Your task to perform on an android device: toggle notification dots Image 0: 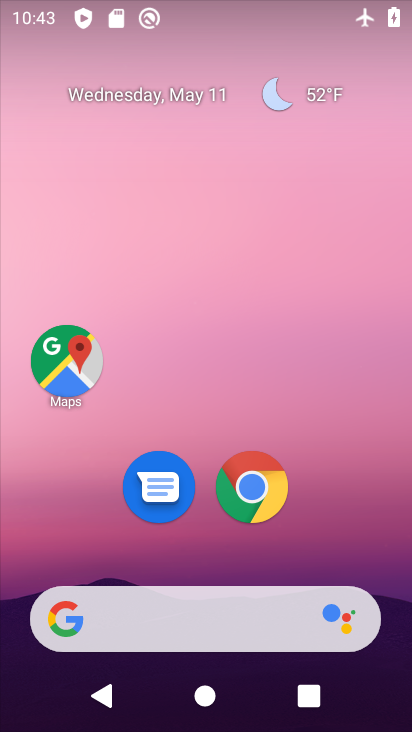
Step 0: drag from (351, 526) to (242, 15)
Your task to perform on an android device: toggle notification dots Image 1: 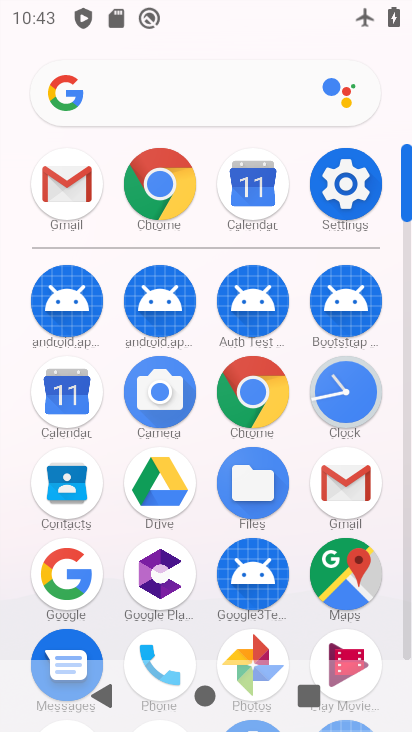
Step 1: drag from (8, 529) to (3, 211)
Your task to perform on an android device: toggle notification dots Image 2: 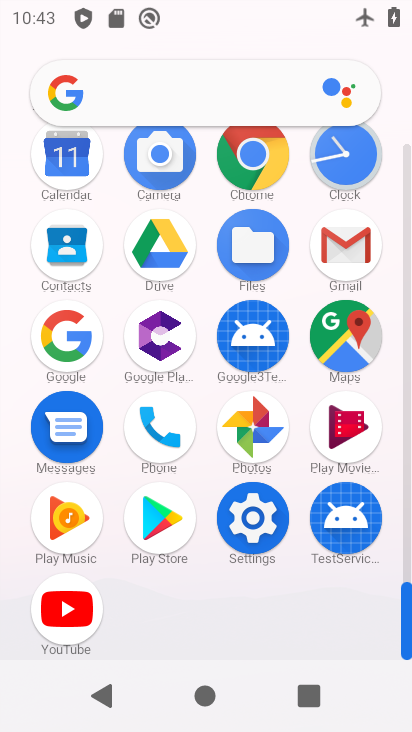
Step 2: click (252, 514)
Your task to perform on an android device: toggle notification dots Image 3: 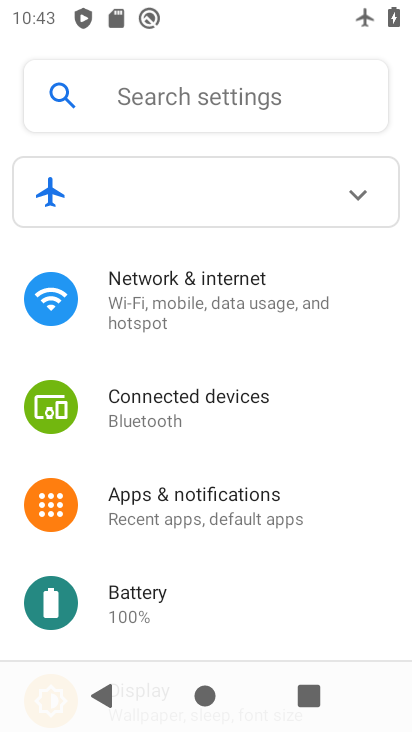
Step 3: drag from (325, 585) to (332, 203)
Your task to perform on an android device: toggle notification dots Image 4: 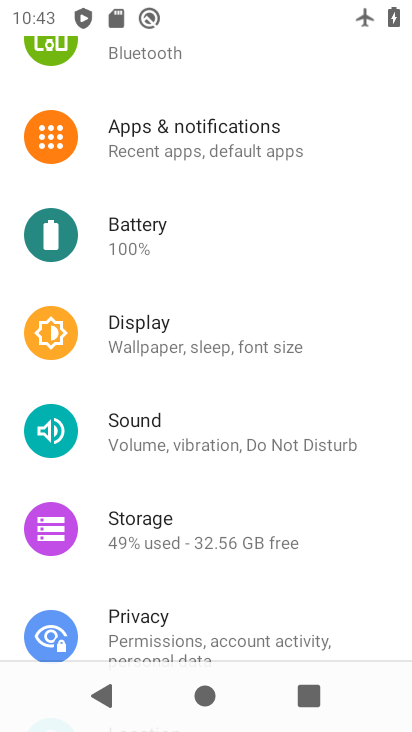
Step 4: drag from (327, 537) to (333, 166)
Your task to perform on an android device: toggle notification dots Image 5: 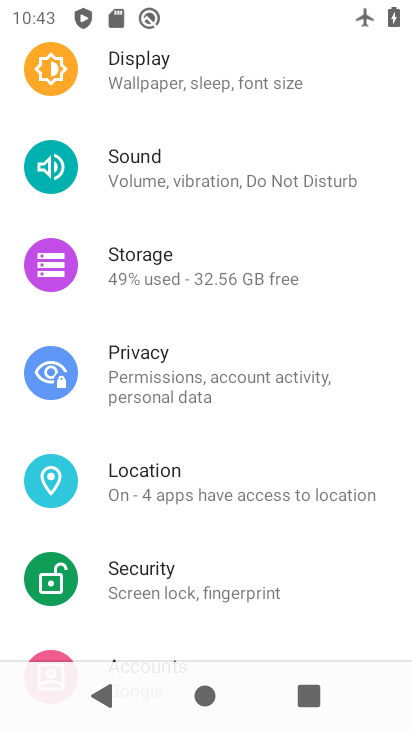
Step 5: drag from (318, 495) to (332, 170)
Your task to perform on an android device: toggle notification dots Image 6: 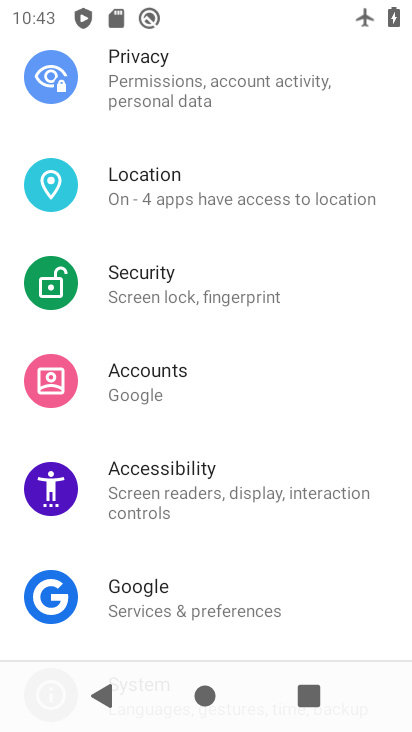
Step 6: drag from (309, 513) to (308, 183)
Your task to perform on an android device: toggle notification dots Image 7: 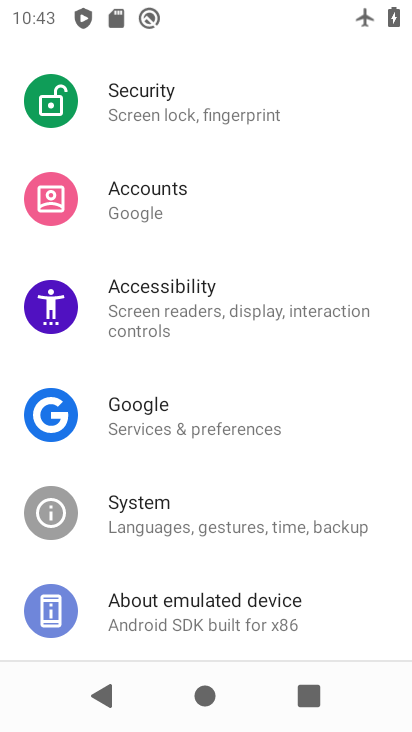
Step 7: drag from (266, 197) to (275, 558)
Your task to perform on an android device: toggle notification dots Image 8: 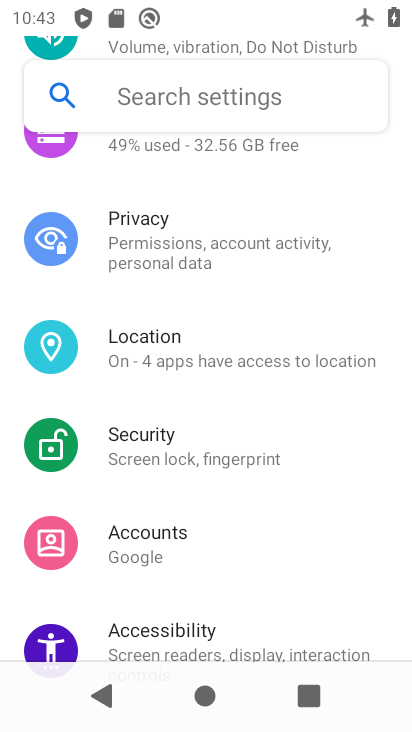
Step 8: drag from (270, 211) to (275, 581)
Your task to perform on an android device: toggle notification dots Image 9: 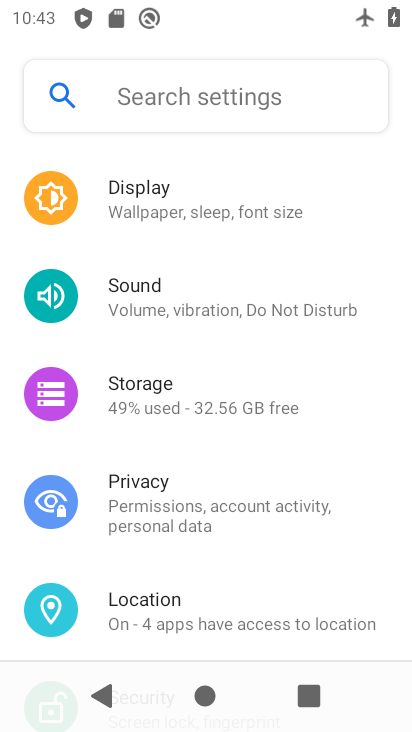
Step 9: drag from (288, 209) to (288, 525)
Your task to perform on an android device: toggle notification dots Image 10: 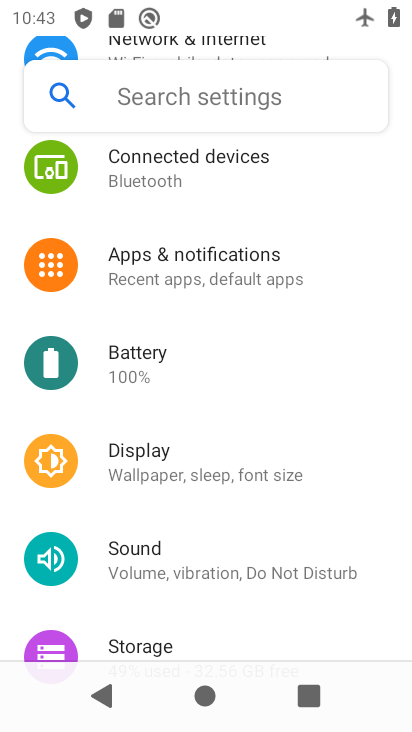
Step 10: click (248, 274)
Your task to perform on an android device: toggle notification dots Image 11: 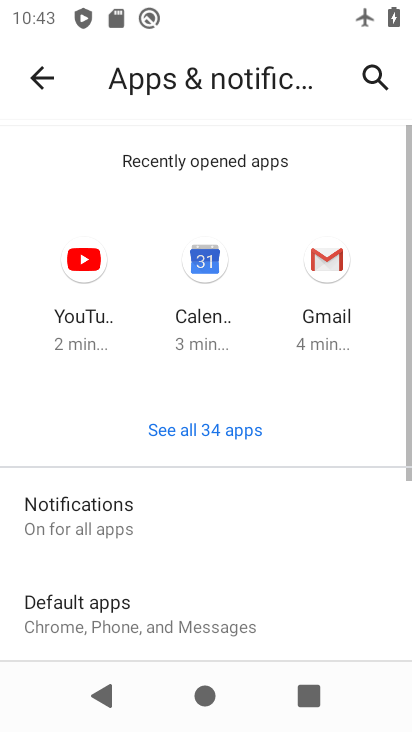
Step 11: drag from (240, 571) to (272, 183)
Your task to perform on an android device: toggle notification dots Image 12: 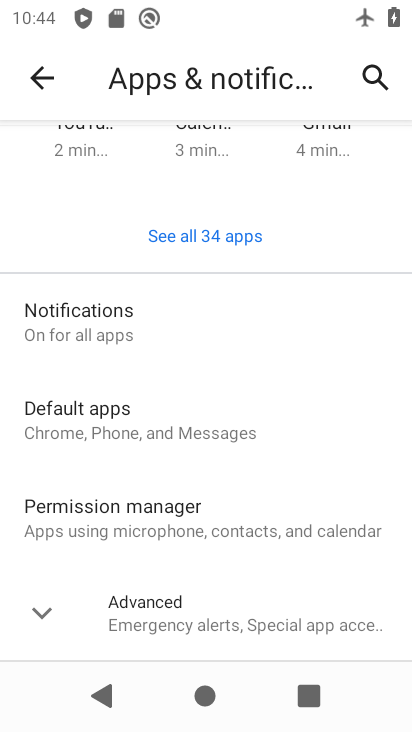
Step 12: click (59, 595)
Your task to perform on an android device: toggle notification dots Image 13: 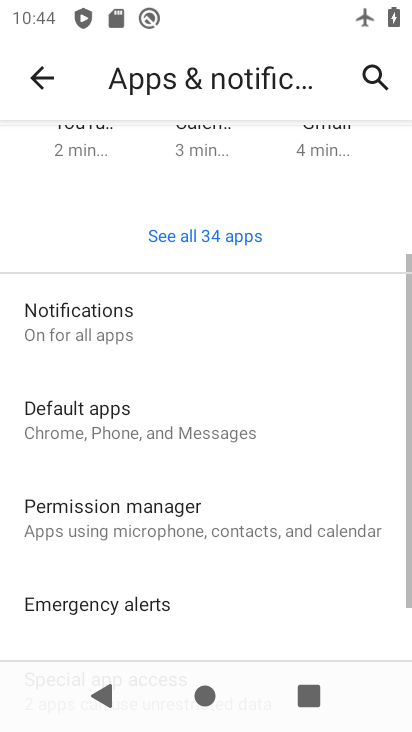
Step 13: drag from (293, 542) to (309, 214)
Your task to perform on an android device: toggle notification dots Image 14: 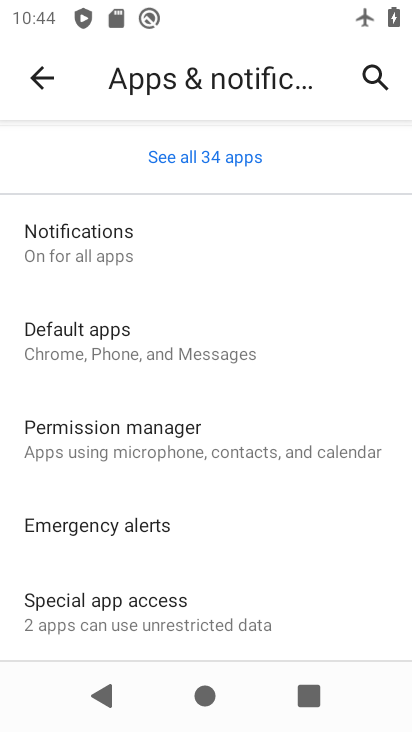
Step 14: click (153, 233)
Your task to perform on an android device: toggle notification dots Image 15: 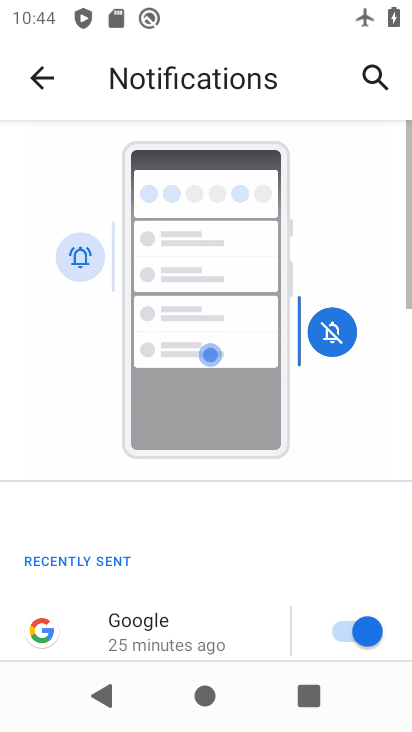
Step 15: drag from (175, 642) to (227, 177)
Your task to perform on an android device: toggle notification dots Image 16: 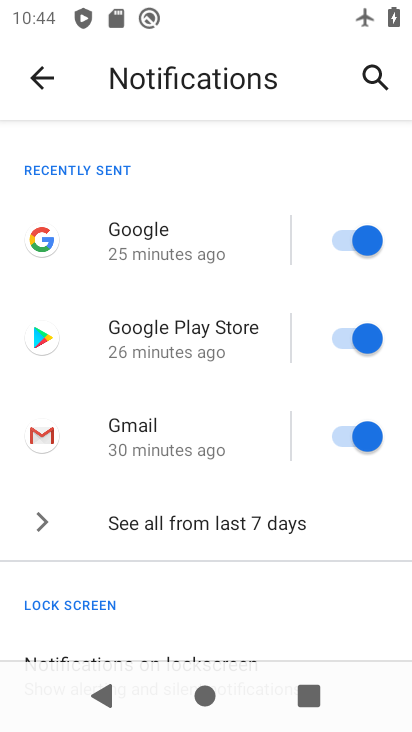
Step 16: drag from (221, 550) to (224, 154)
Your task to perform on an android device: toggle notification dots Image 17: 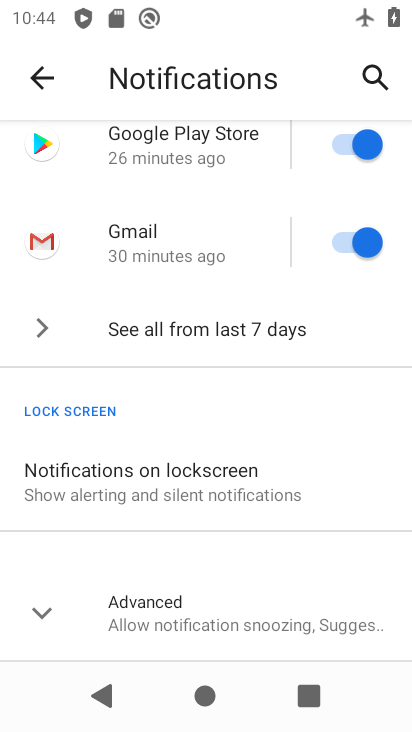
Step 17: click (150, 597)
Your task to perform on an android device: toggle notification dots Image 18: 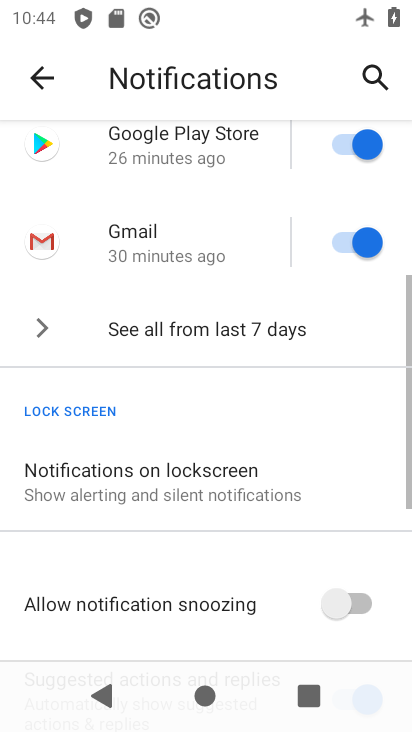
Step 18: drag from (201, 613) to (236, 222)
Your task to perform on an android device: toggle notification dots Image 19: 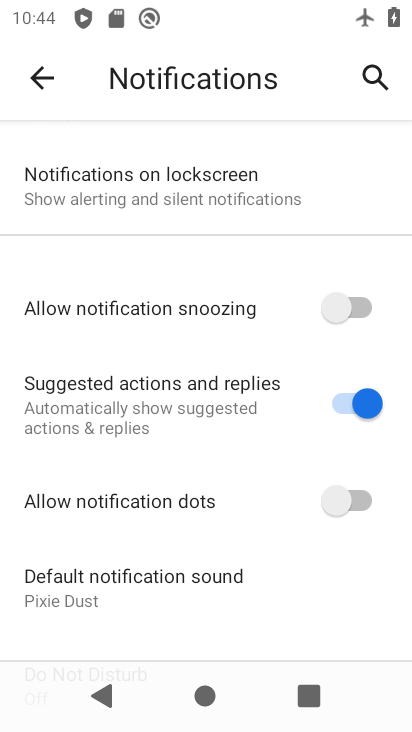
Step 19: click (359, 495)
Your task to perform on an android device: toggle notification dots Image 20: 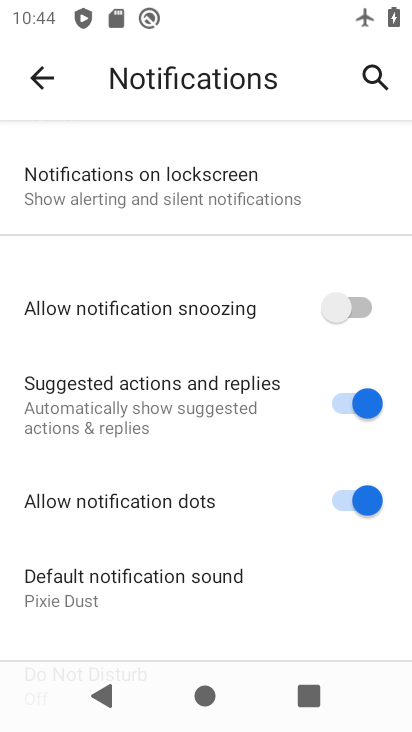
Step 20: task complete